Your task to perform on an android device: toggle data saver in the chrome app Image 0: 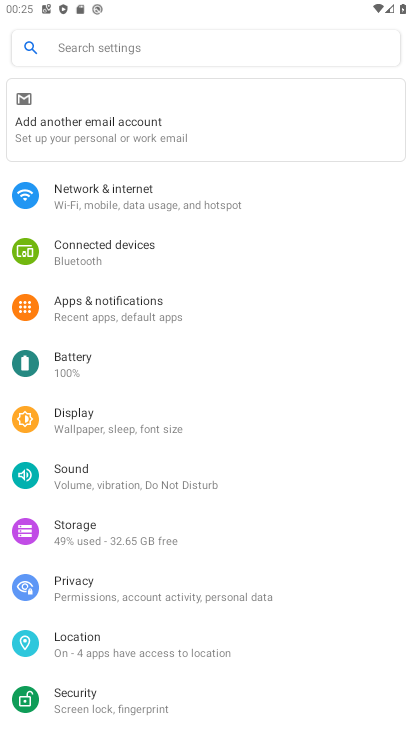
Step 0: press back button
Your task to perform on an android device: toggle data saver in the chrome app Image 1: 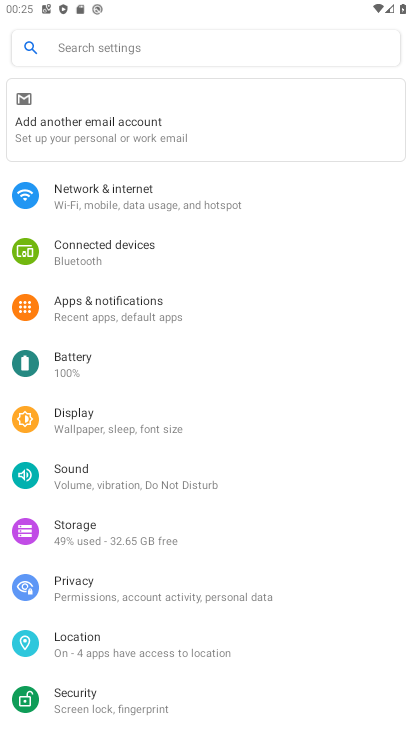
Step 1: press back button
Your task to perform on an android device: toggle data saver in the chrome app Image 2: 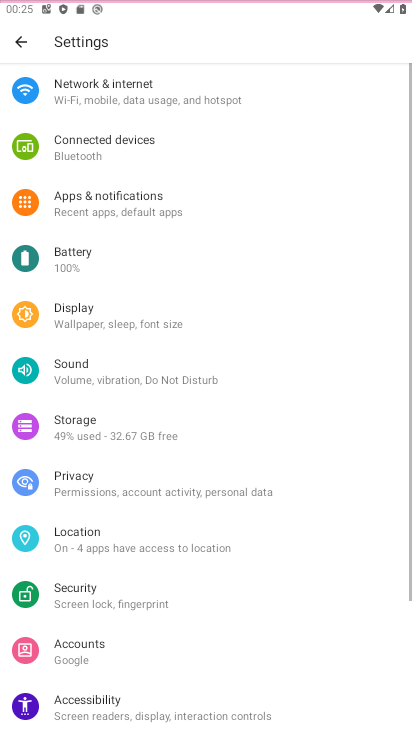
Step 2: press back button
Your task to perform on an android device: toggle data saver in the chrome app Image 3: 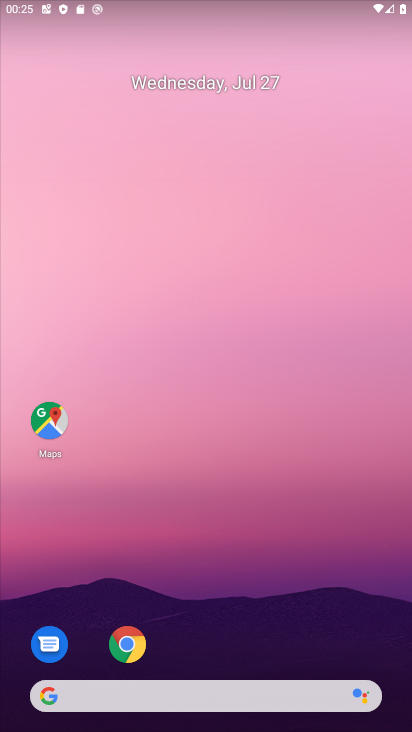
Step 3: drag from (271, 17) to (224, 5)
Your task to perform on an android device: toggle data saver in the chrome app Image 4: 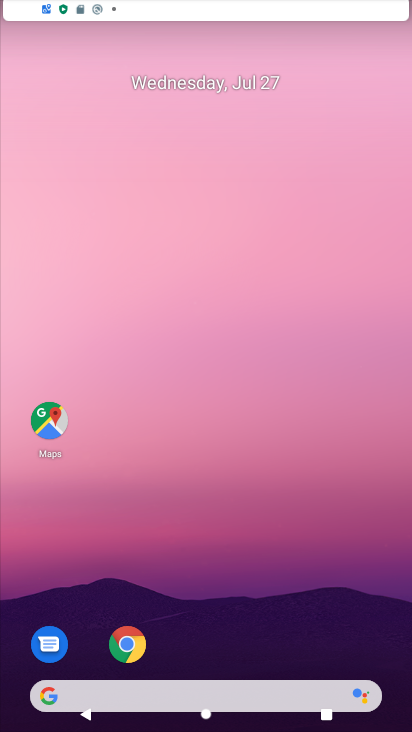
Step 4: drag from (160, 267) to (122, 129)
Your task to perform on an android device: toggle data saver in the chrome app Image 5: 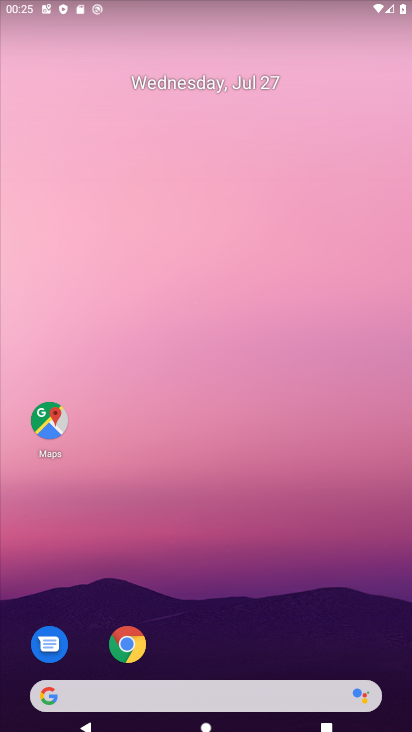
Step 5: drag from (161, 535) to (212, 41)
Your task to perform on an android device: toggle data saver in the chrome app Image 6: 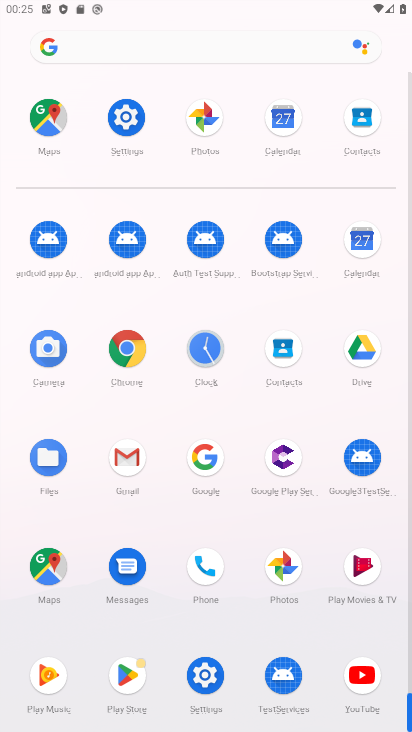
Step 6: click (100, 345)
Your task to perform on an android device: toggle data saver in the chrome app Image 7: 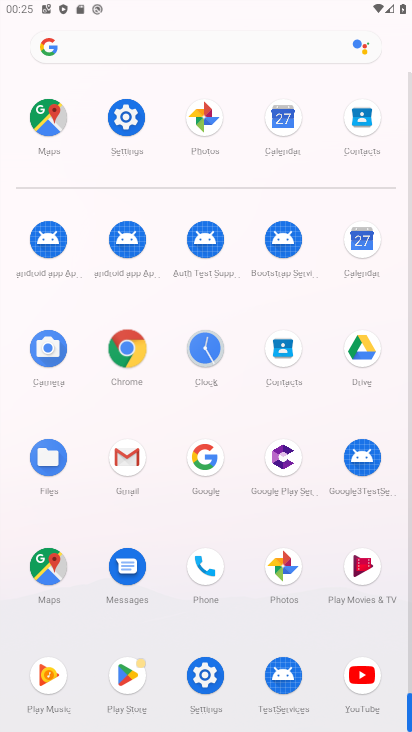
Step 7: click (108, 345)
Your task to perform on an android device: toggle data saver in the chrome app Image 8: 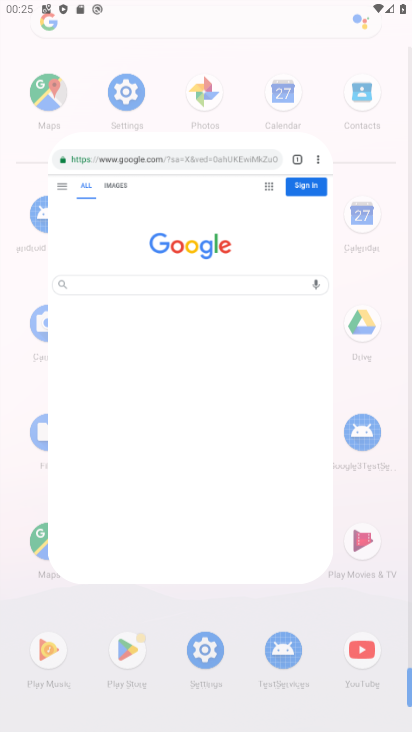
Step 8: click (111, 347)
Your task to perform on an android device: toggle data saver in the chrome app Image 9: 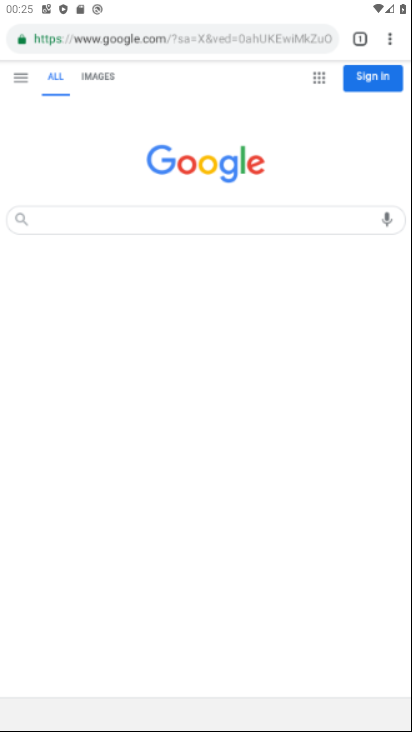
Step 9: click (120, 351)
Your task to perform on an android device: toggle data saver in the chrome app Image 10: 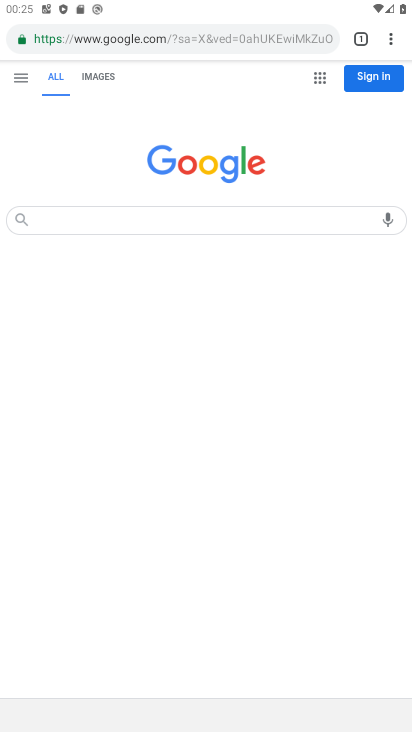
Step 10: drag from (385, 39) to (238, 443)
Your task to perform on an android device: toggle data saver in the chrome app Image 11: 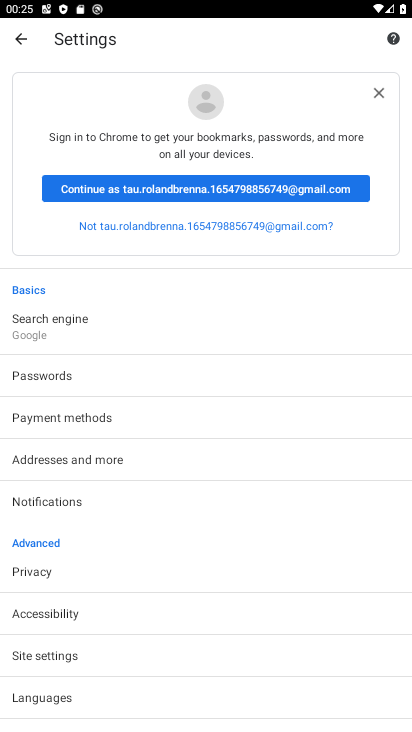
Step 11: drag from (66, 546) to (86, 356)
Your task to perform on an android device: toggle data saver in the chrome app Image 12: 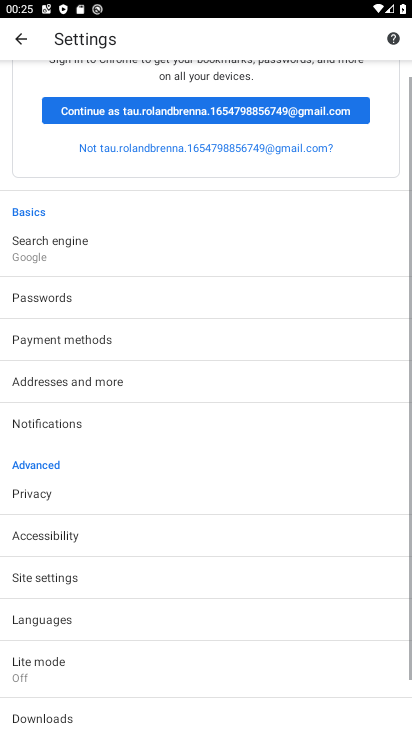
Step 12: drag from (69, 555) to (71, 399)
Your task to perform on an android device: toggle data saver in the chrome app Image 13: 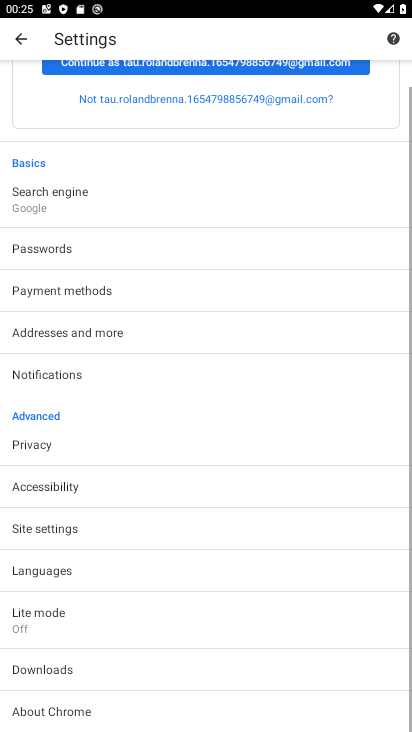
Step 13: drag from (107, 484) to (127, 310)
Your task to perform on an android device: toggle data saver in the chrome app Image 14: 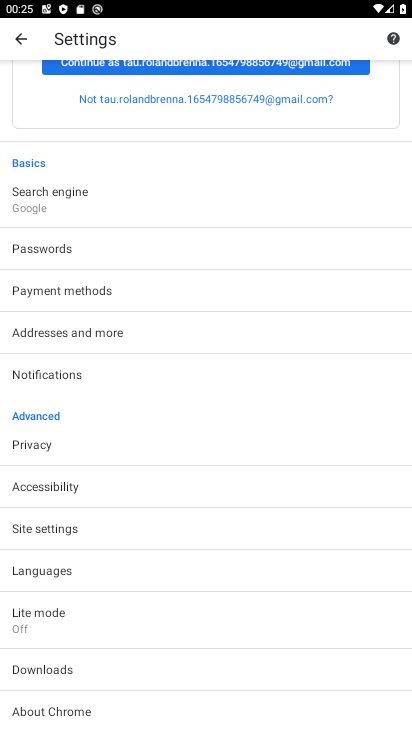
Step 14: click (23, 608)
Your task to perform on an android device: toggle data saver in the chrome app Image 15: 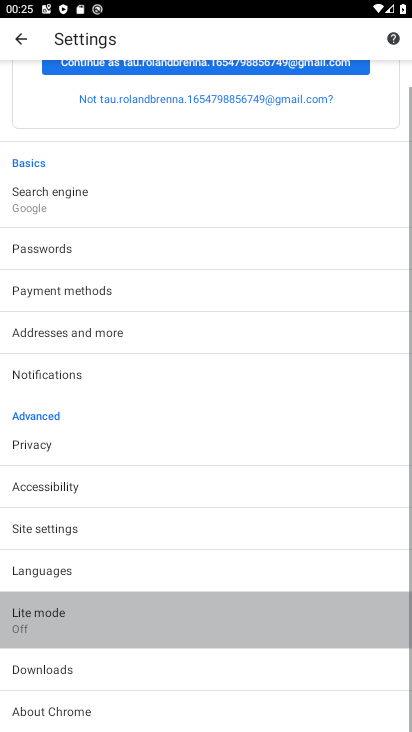
Step 15: click (24, 607)
Your task to perform on an android device: toggle data saver in the chrome app Image 16: 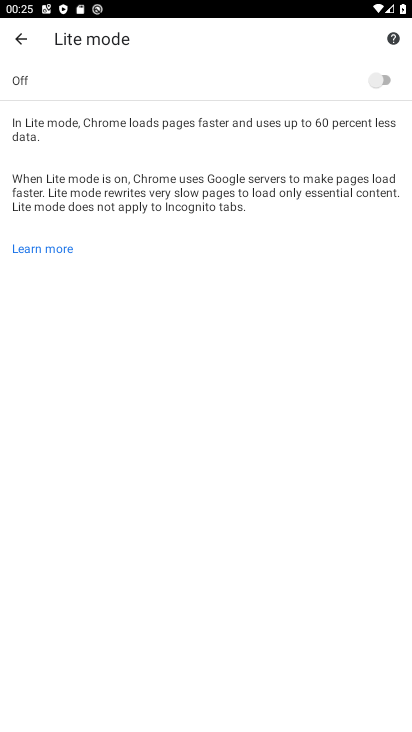
Step 16: click (378, 80)
Your task to perform on an android device: toggle data saver in the chrome app Image 17: 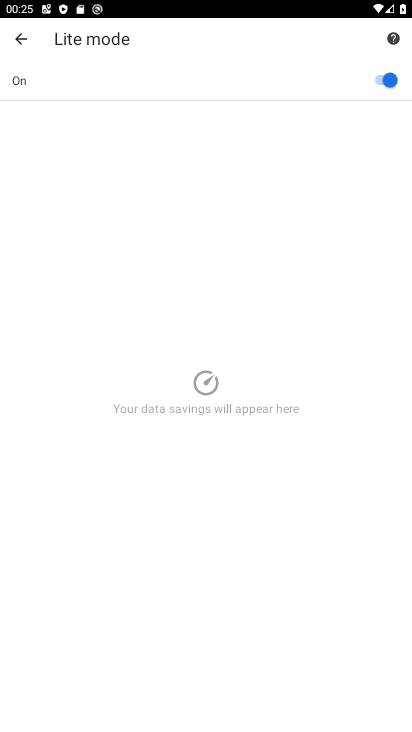
Step 17: task complete